Your task to perform on an android device: toggle data saver in the chrome app Image 0: 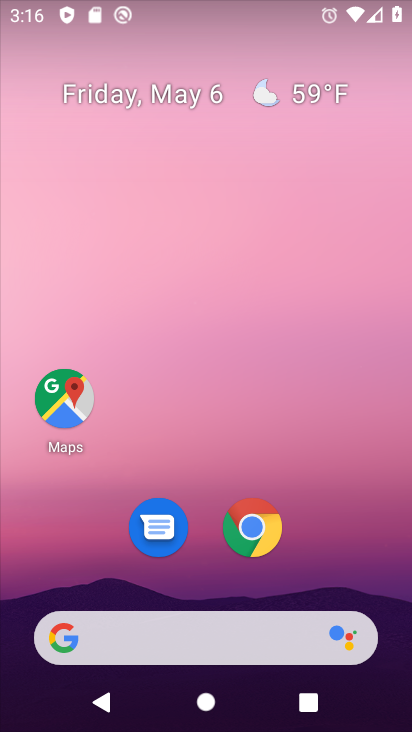
Step 0: drag from (324, 552) to (322, 126)
Your task to perform on an android device: toggle data saver in the chrome app Image 1: 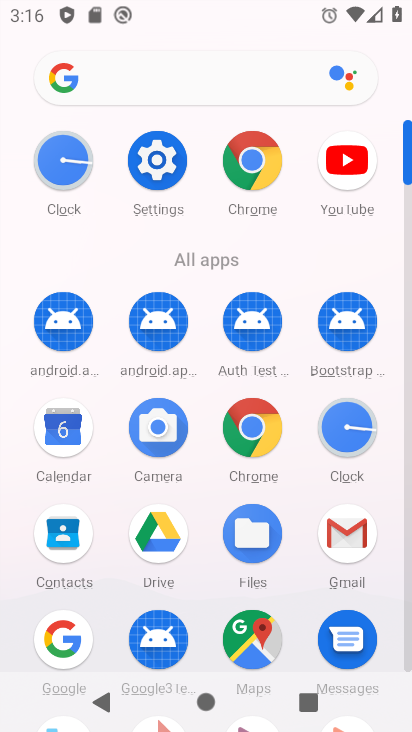
Step 1: click (246, 432)
Your task to perform on an android device: toggle data saver in the chrome app Image 2: 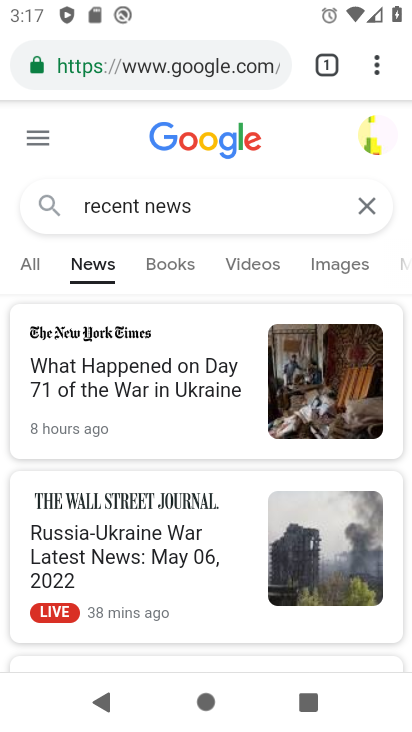
Step 2: drag from (377, 67) to (176, 574)
Your task to perform on an android device: toggle data saver in the chrome app Image 3: 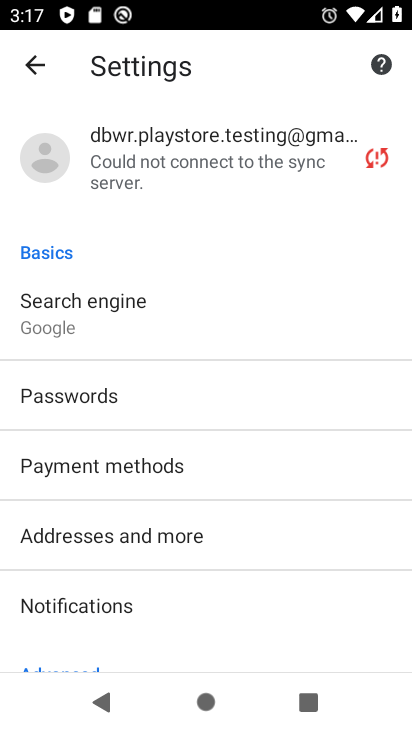
Step 3: drag from (158, 624) to (290, 234)
Your task to perform on an android device: toggle data saver in the chrome app Image 4: 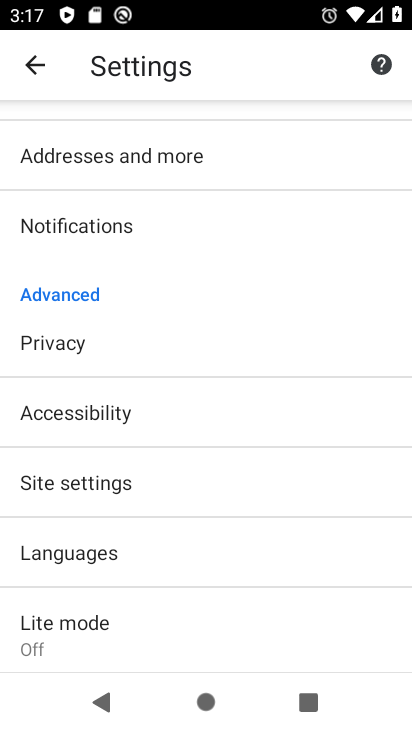
Step 4: click (115, 494)
Your task to perform on an android device: toggle data saver in the chrome app Image 5: 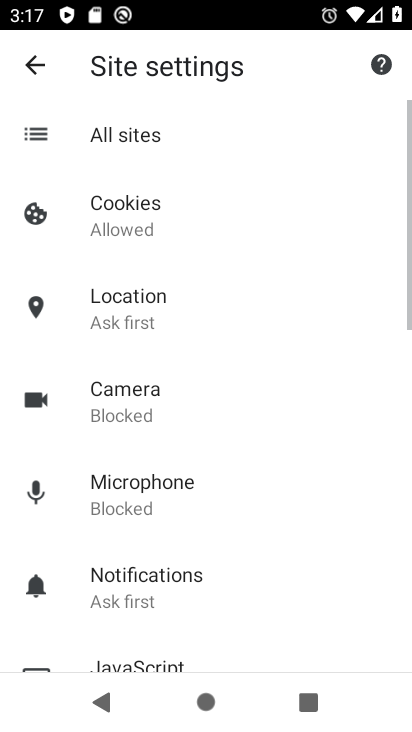
Step 5: drag from (166, 596) to (251, 169)
Your task to perform on an android device: toggle data saver in the chrome app Image 6: 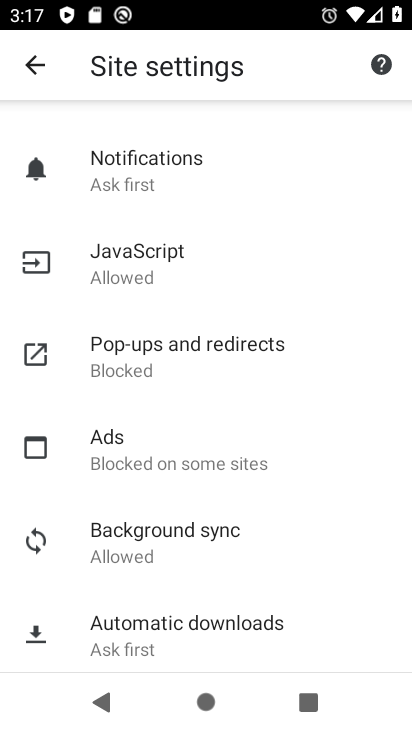
Step 6: click (36, 66)
Your task to perform on an android device: toggle data saver in the chrome app Image 7: 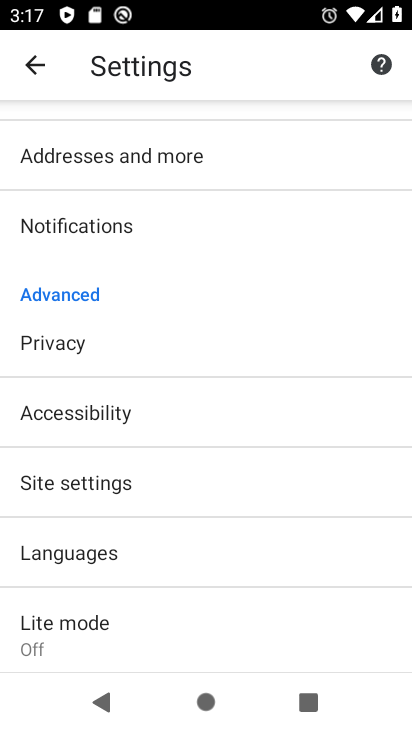
Step 7: click (103, 619)
Your task to perform on an android device: toggle data saver in the chrome app Image 8: 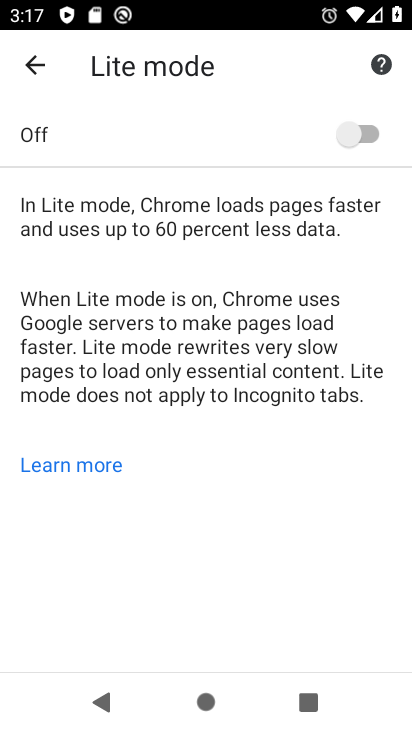
Step 8: click (358, 129)
Your task to perform on an android device: toggle data saver in the chrome app Image 9: 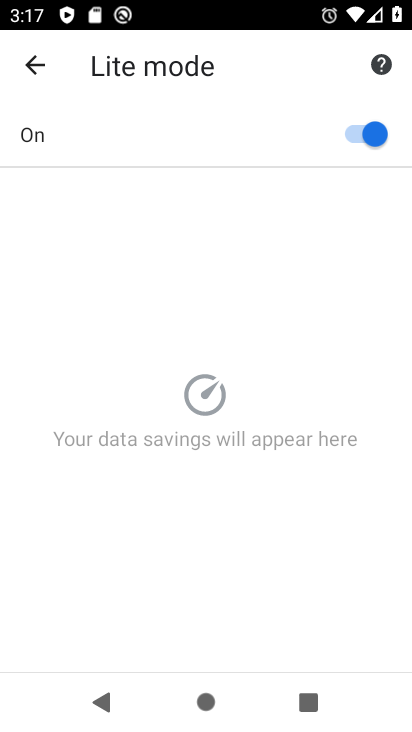
Step 9: task complete